Your task to perform on an android device: find photos in the google photos app Image 0: 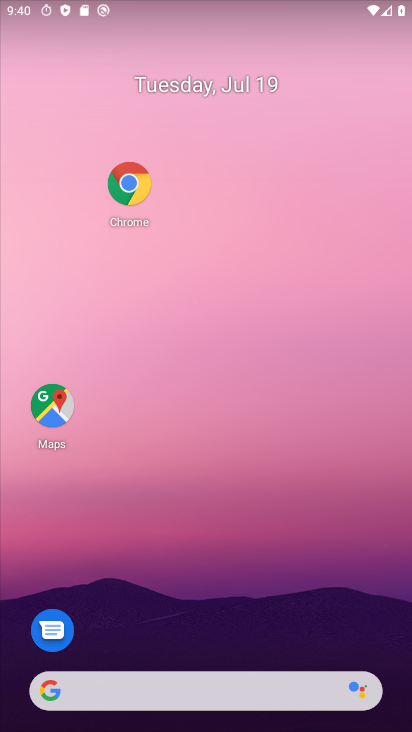
Step 0: drag from (203, 662) to (38, 41)
Your task to perform on an android device: find photos in the google photos app Image 1: 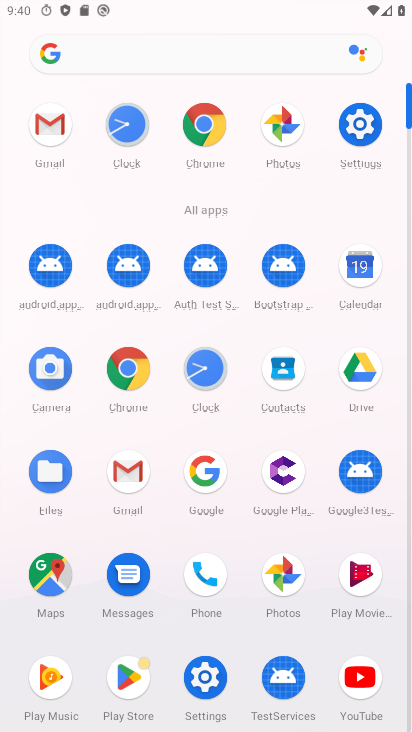
Step 1: click (274, 568)
Your task to perform on an android device: find photos in the google photos app Image 2: 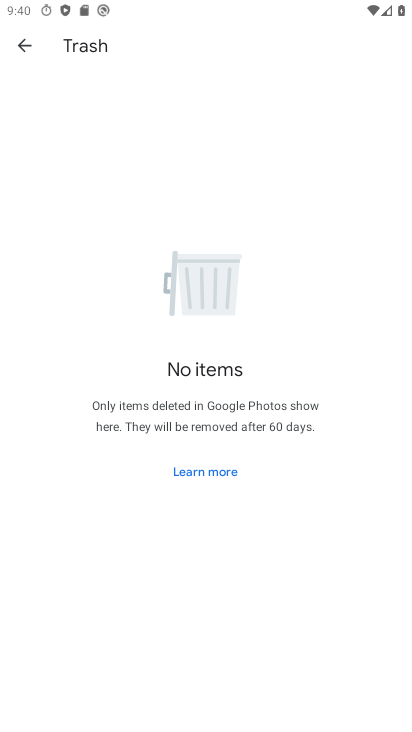
Step 2: click (30, 45)
Your task to perform on an android device: find photos in the google photos app Image 3: 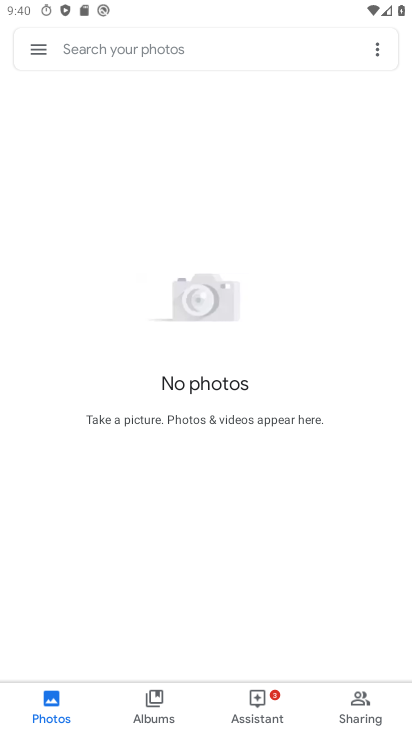
Step 3: click (30, 45)
Your task to perform on an android device: find photos in the google photos app Image 4: 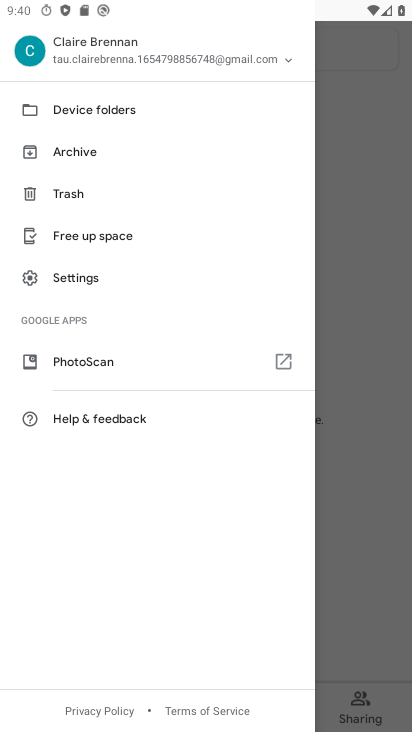
Step 4: click (336, 246)
Your task to perform on an android device: find photos in the google photos app Image 5: 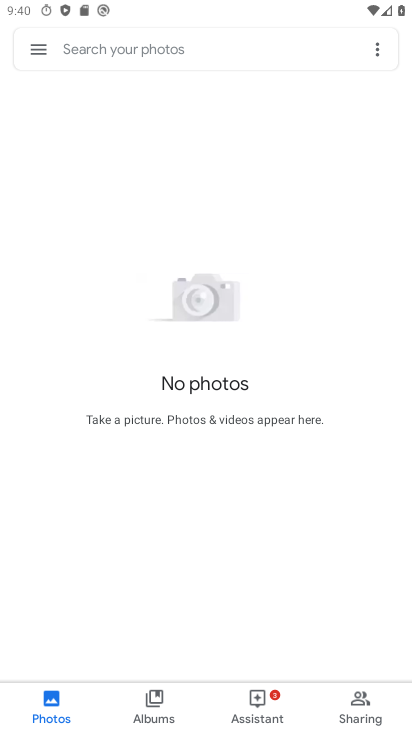
Step 5: task complete